Your task to perform on an android device: open wifi settings Image 0: 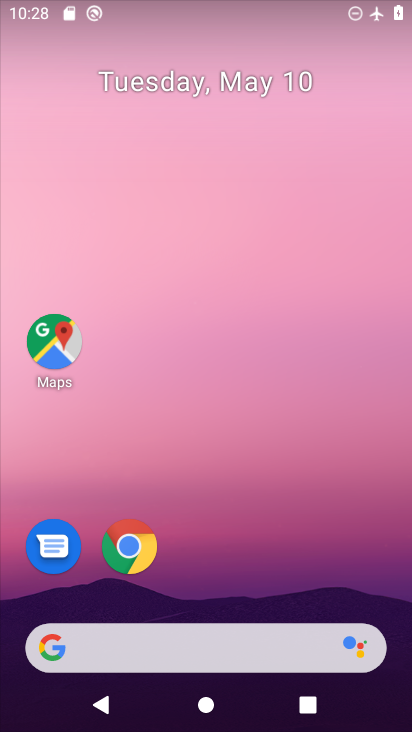
Step 0: drag from (214, 484) to (261, 75)
Your task to perform on an android device: open wifi settings Image 1: 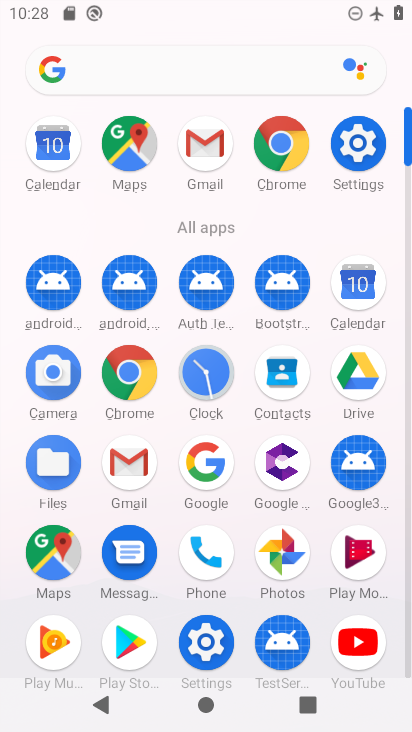
Step 1: click (355, 145)
Your task to perform on an android device: open wifi settings Image 2: 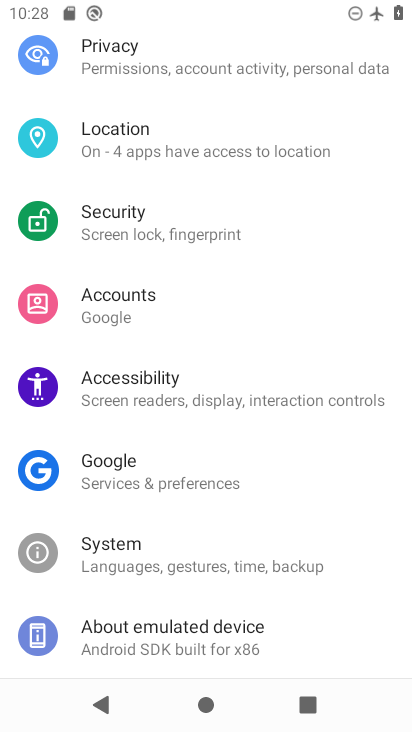
Step 2: drag from (249, 108) to (257, 473)
Your task to perform on an android device: open wifi settings Image 3: 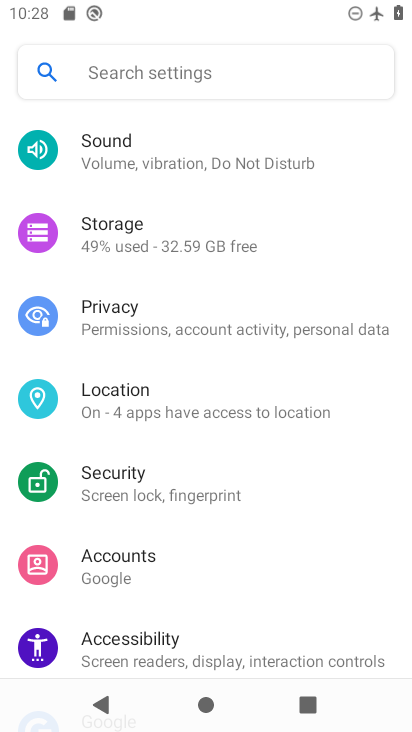
Step 3: drag from (244, 212) to (204, 529)
Your task to perform on an android device: open wifi settings Image 4: 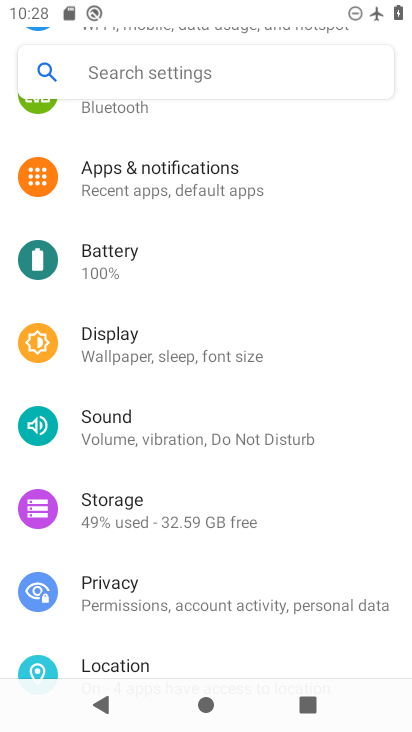
Step 4: drag from (251, 241) to (221, 604)
Your task to perform on an android device: open wifi settings Image 5: 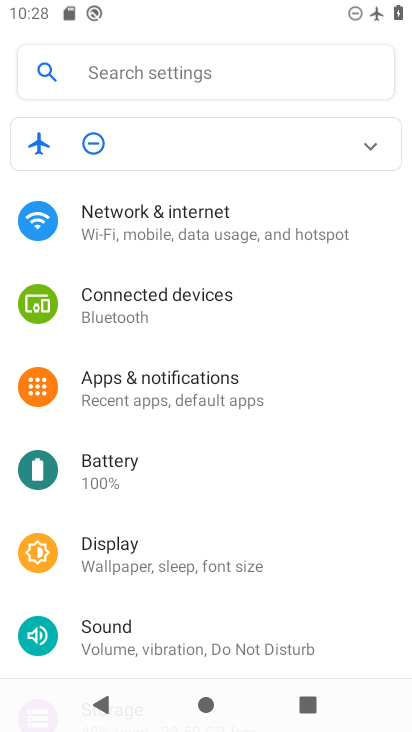
Step 5: click (179, 249)
Your task to perform on an android device: open wifi settings Image 6: 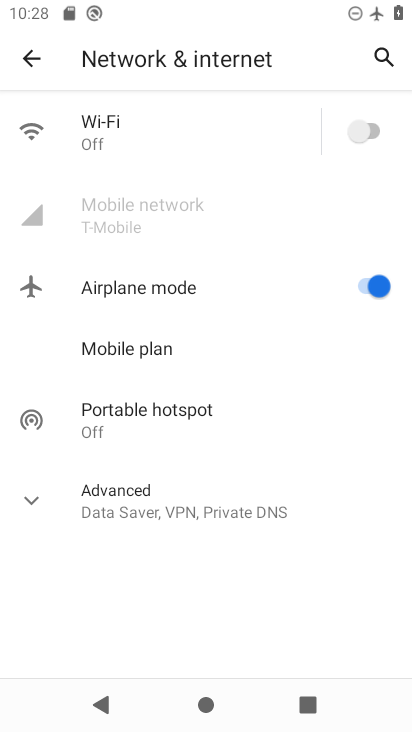
Step 6: click (157, 117)
Your task to perform on an android device: open wifi settings Image 7: 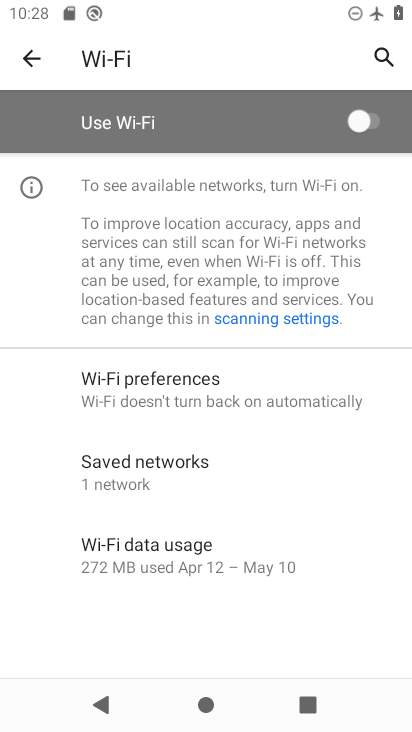
Step 7: click (333, 113)
Your task to perform on an android device: open wifi settings Image 8: 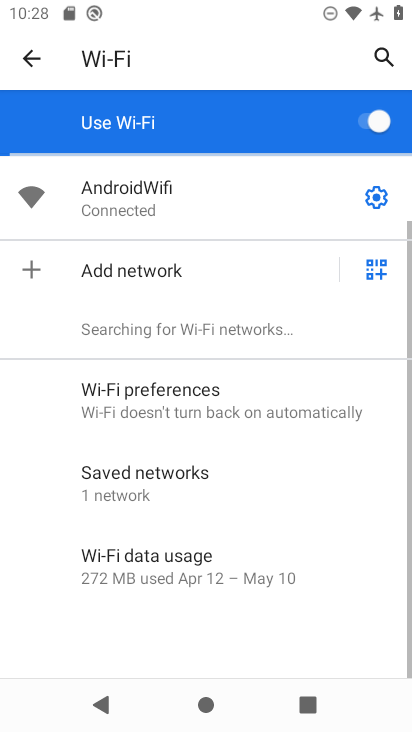
Step 8: click (374, 195)
Your task to perform on an android device: open wifi settings Image 9: 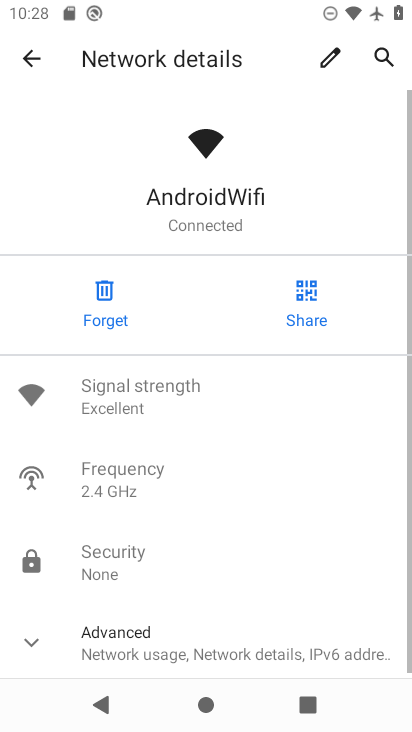
Step 9: task complete